Your task to perform on an android device: Open display settings Image 0: 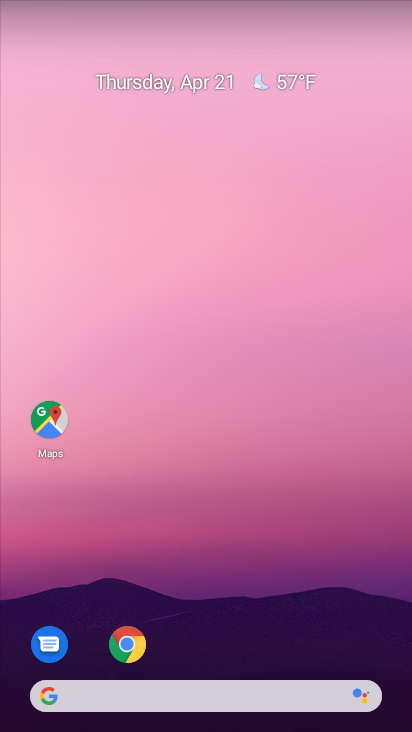
Step 0: drag from (234, 614) to (223, 39)
Your task to perform on an android device: Open display settings Image 1: 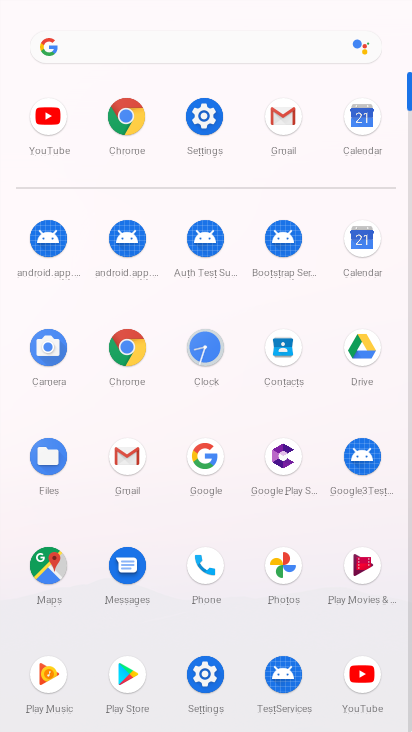
Step 1: click (197, 124)
Your task to perform on an android device: Open display settings Image 2: 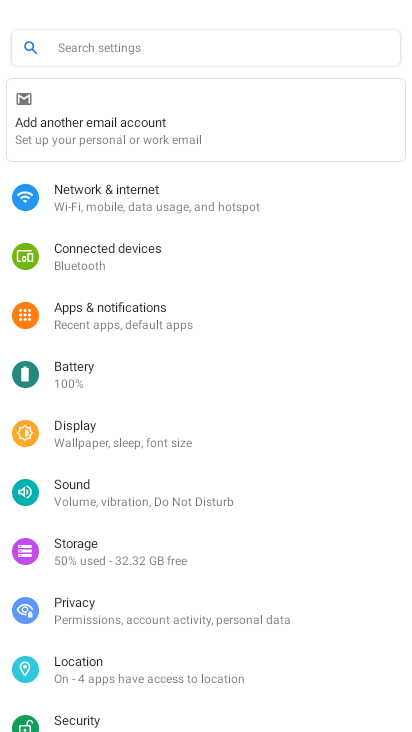
Step 2: click (144, 435)
Your task to perform on an android device: Open display settings Image 3: 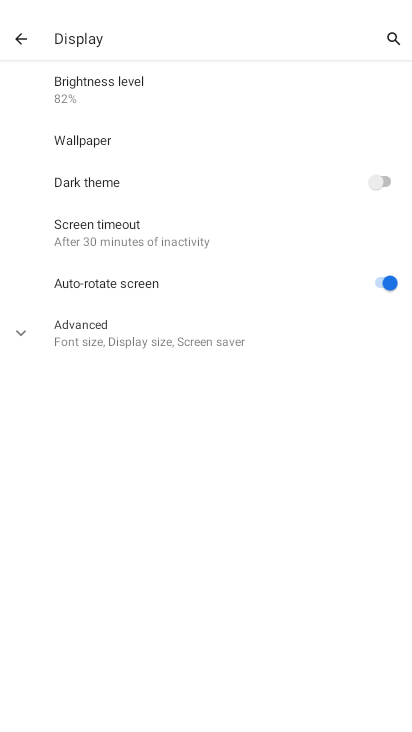
Step 3: task complete